Your task to perform on an android device: Go to location settings Image 0: 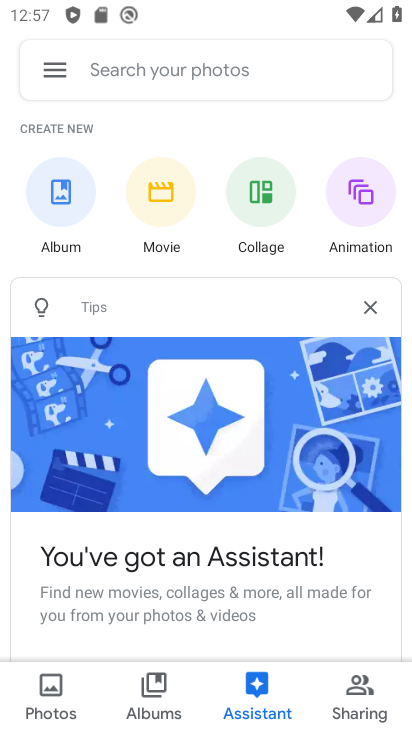
Step 0: press home button
Your task to perform on an android device: Go to location settings Image 1: 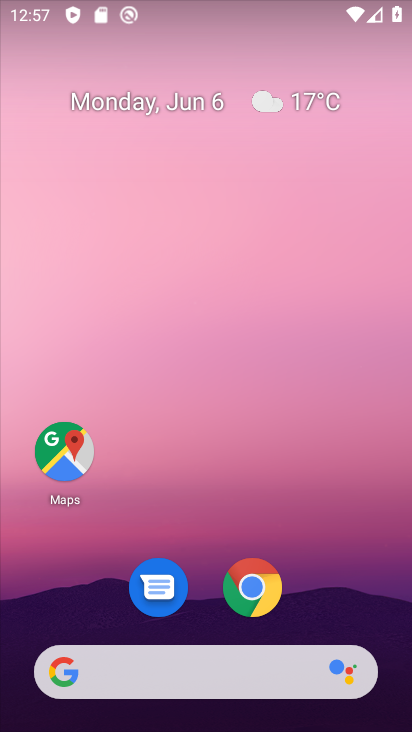
Step 1: drag from (203, 615) to (266, 80)
Your task to perform on an android device: Go to location settings Image 2: 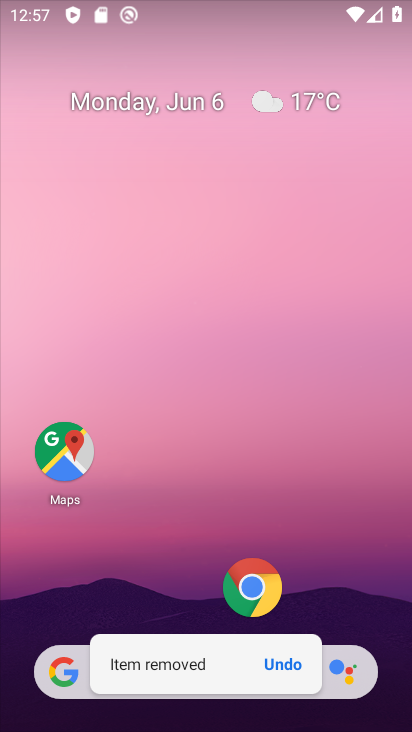
Step 2: drag from (179, 600) to (196, 122)
Your task to perform on an android device: Go to location settings Image 3: 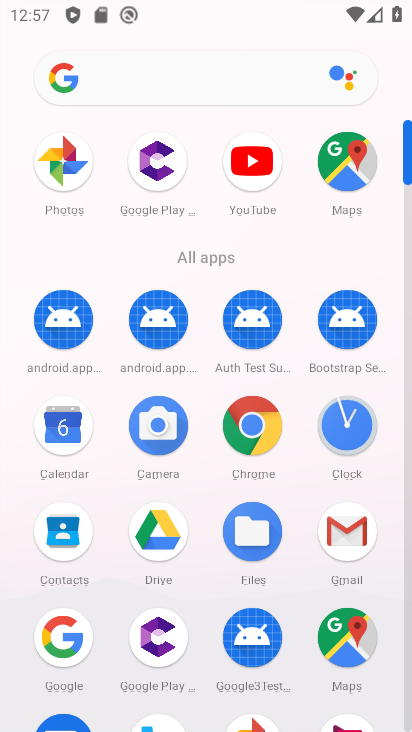
Step 3: drag from (221, 608) to (234, 138)
Your task to perform on an android device: Go to location settings Image 4: 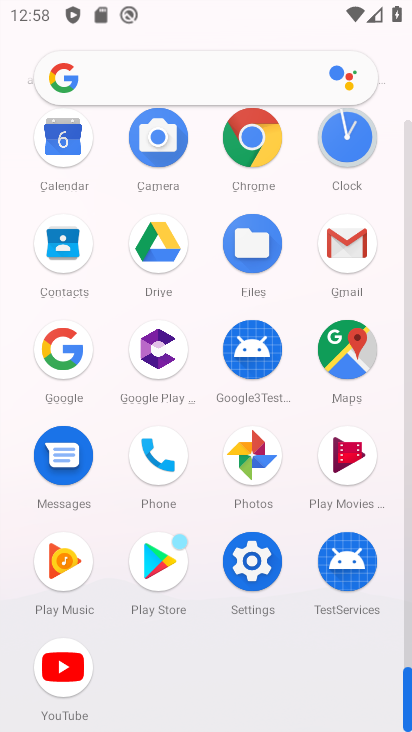
Step 4: click (271, 584)
Your task to perform on an android device: Go to location settings Image 5: 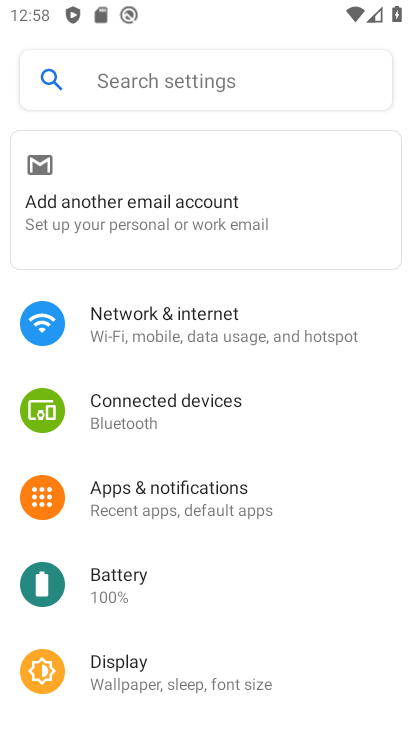
Step 5: drag from (160, 638) to (184, 357)
Your task to perform on an android device: Go to location settings Image 6: 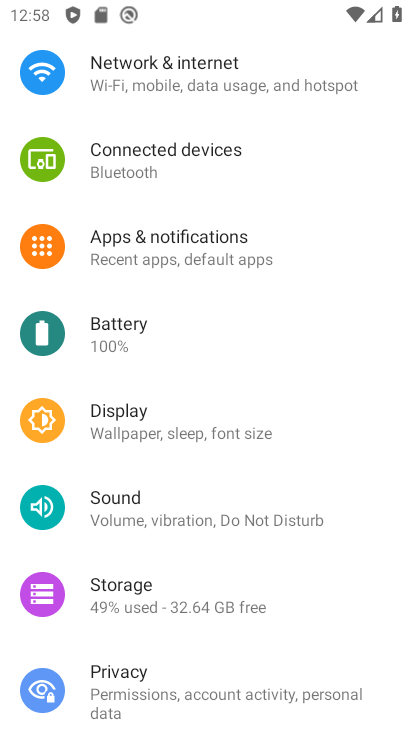
Step 6: drag from (168, 606) to (175, 301)
Your task to perform on an android device: Go to location settings Image 7: 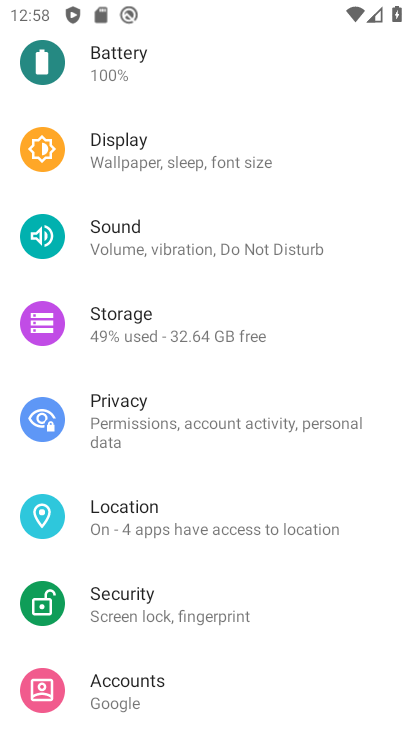
Step 7: click (151, 526)
Your task to perform on an android device: Go to location settings Image 8: 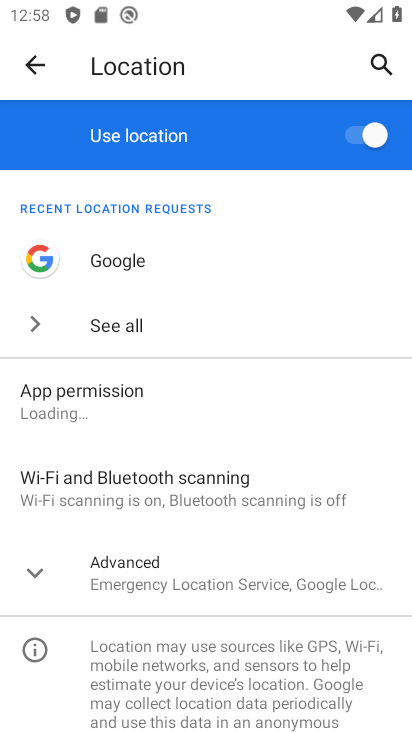
Step 8: task complete